Your task to perform on an android device: Go to eBay Image 0: 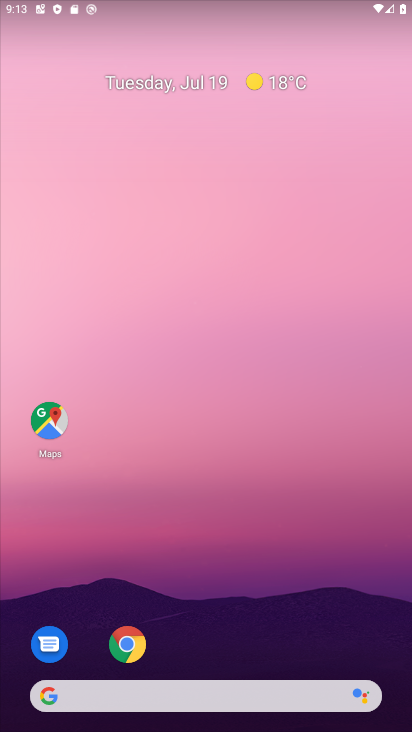
Step 0: drag from (248, 698) to (246, 168)
Your task to perform on an android device: Go to eBay Image 1: 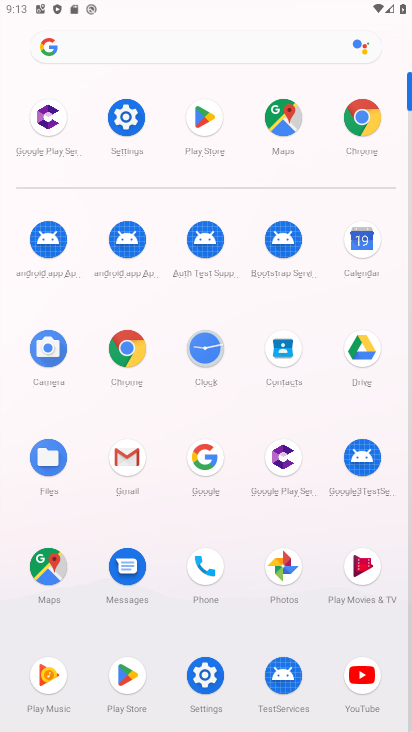
Step 1: click (364, 120)
Your task to perform on an android device: Go to eBay Image 2: 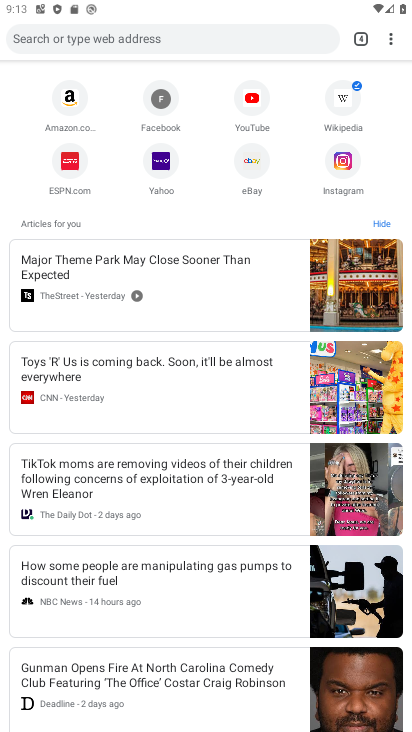
Step 2: click (251, 154)
Your task to perform on an android device: Go to eBay Image 3: 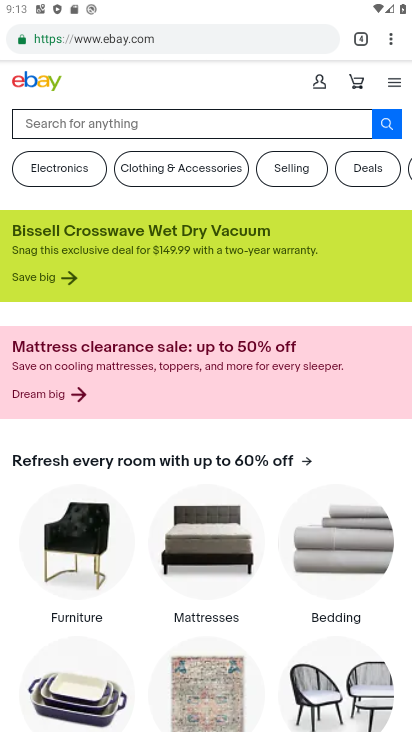
Step 3: task complete